Your task to perform on an android device: Add razer nari to the cart on amazon.com Image 0: 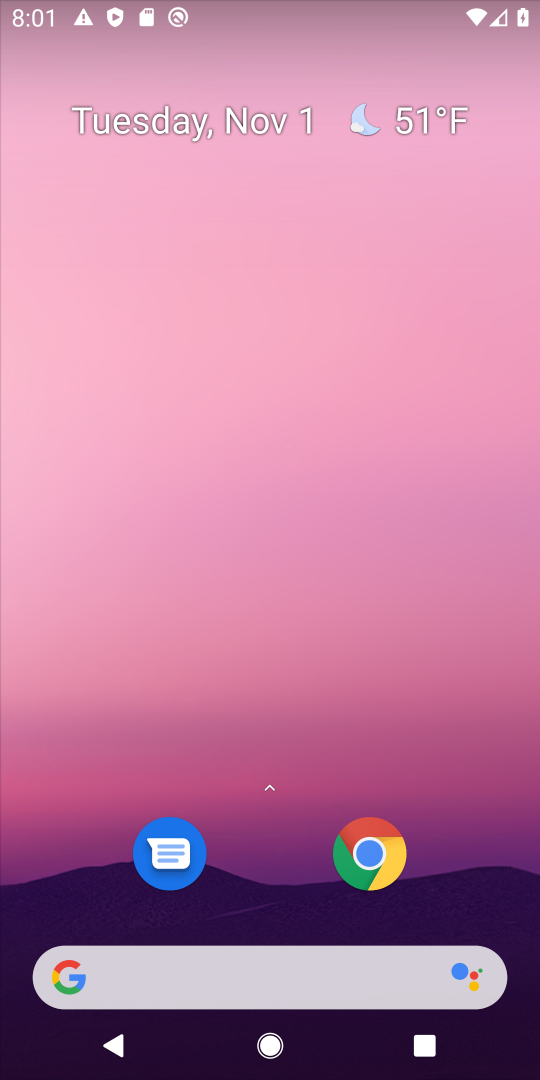
Step 0: click (245, 964)
Your task to perform on an android device: Add razer nari to the cart on amazon.com Image 1: 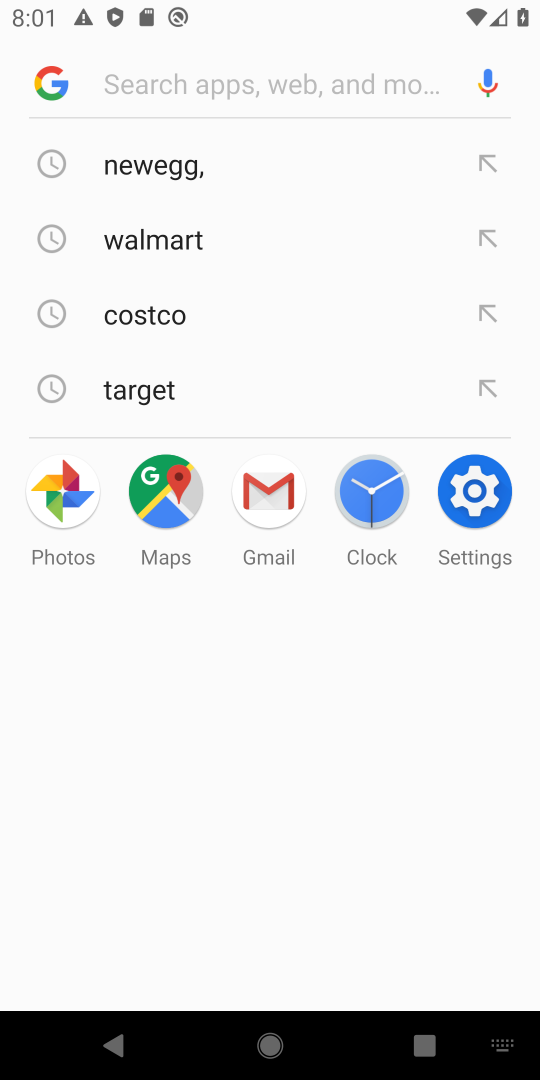
Step 1: type "razer nar"
Your task to perform on an android device: Add razer nari to the cart on amazon.com Image 2: 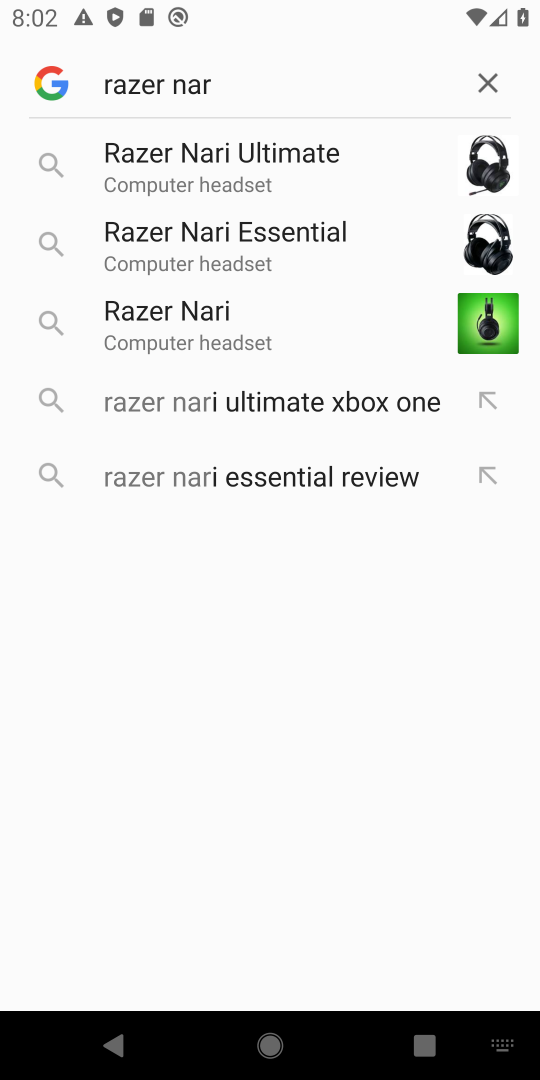
Step 2: click (256, 199)
Your task to perform on an android device: Add razer nari to the cart on amazon.com Image 3: 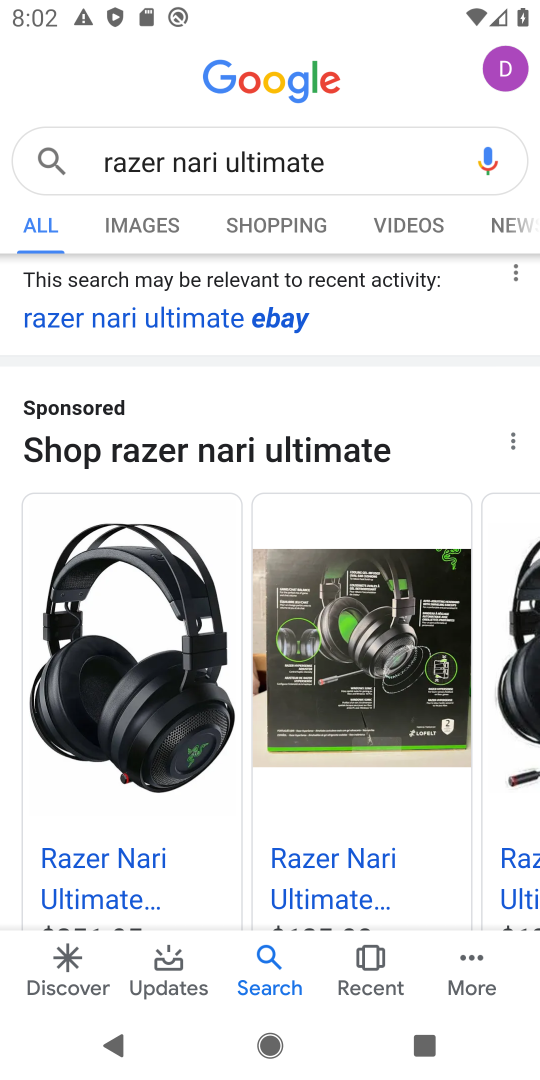
Step 3: click (78, 888)
Your task to perform on an android device: Add razer nari to the cart on amazon.com Image 4: 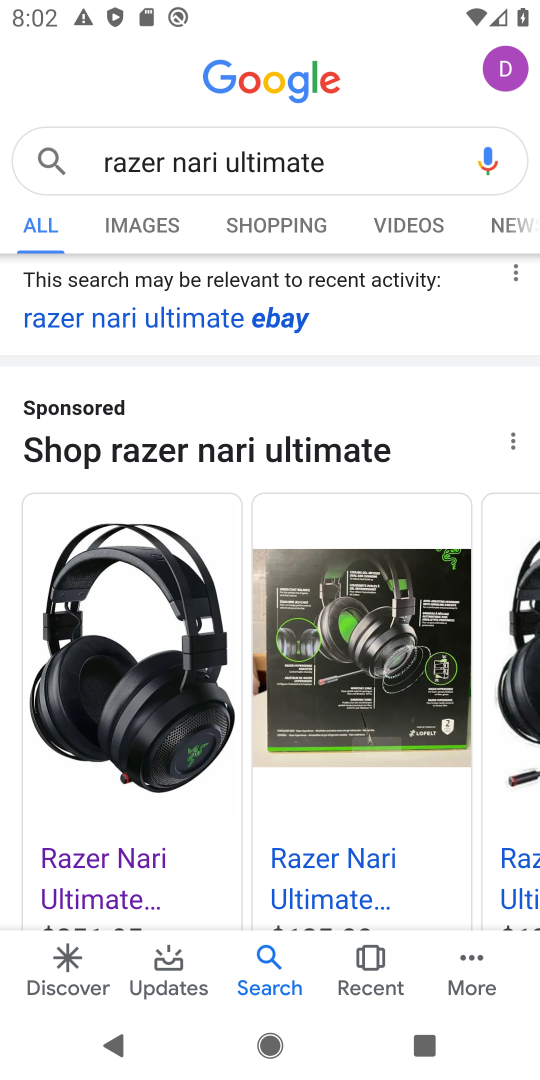
Step 4: task complete